Your task to perform on an android device: toggle location history Image 0: 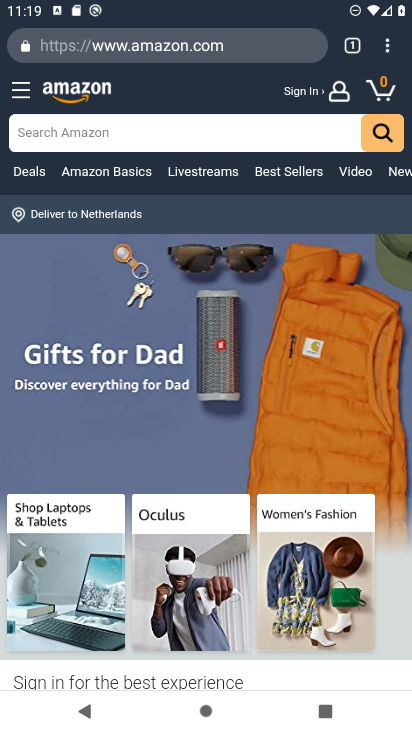
Step 0: press home button
Your task to perform on an android device: toggle location history Image 1: 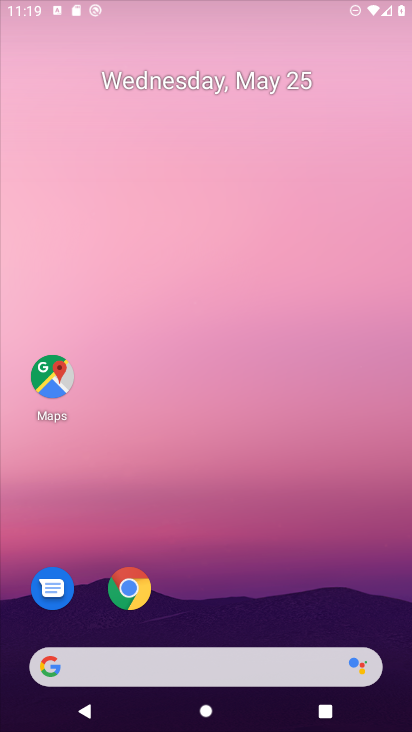
Step 1: drag from (29, 537) to (257, 136)
Your task to perform on an android device: toggle location history Image 2: 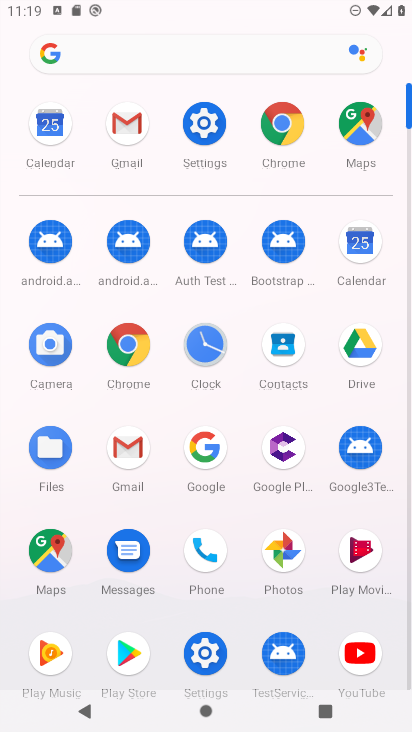
Step 2: click (207, 119)
Your task to perform on an android device: toggle location history Image 3: 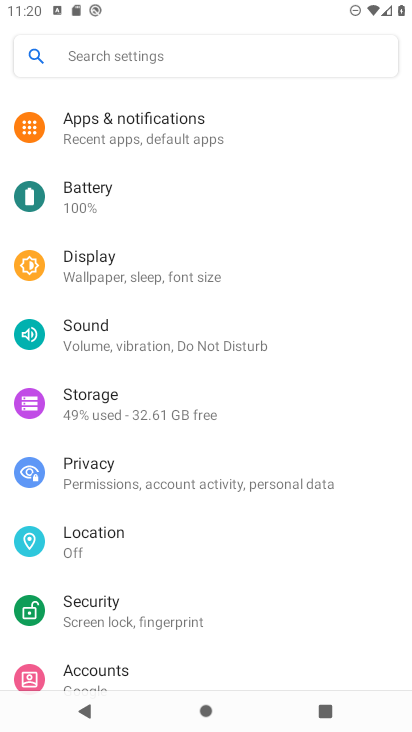
Step 3: click (88, 534)
Your task to perform on an android device: toggle location history Image 4: 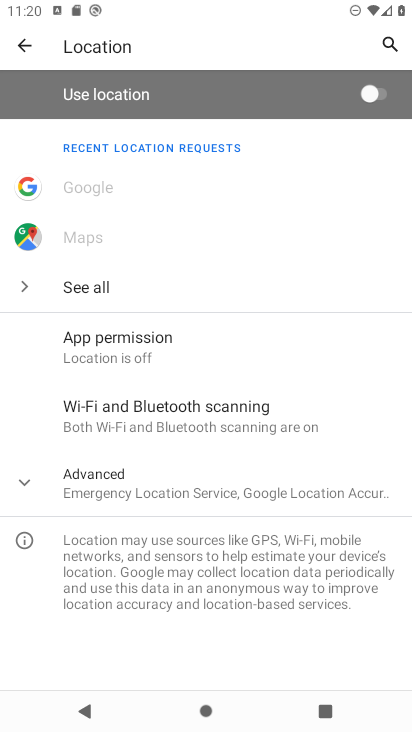
Step 4: click (97, 473)
Your task to perform on an android device: toggle location history Image 5: 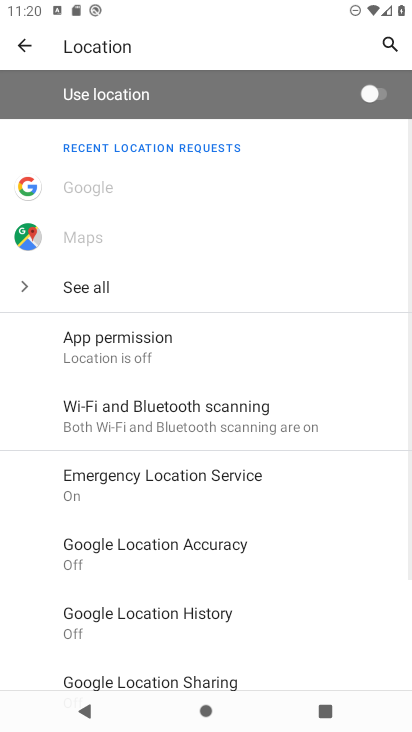
Step 5: click (116, 612)
Your task to perform on an android device: toggle location history Image 6: 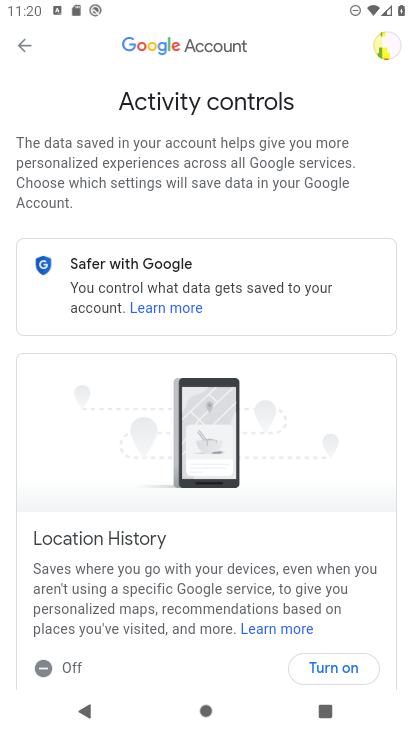
Step 6: click (353, 665)
Your task to perform on an android device: toggle location history Image 7: 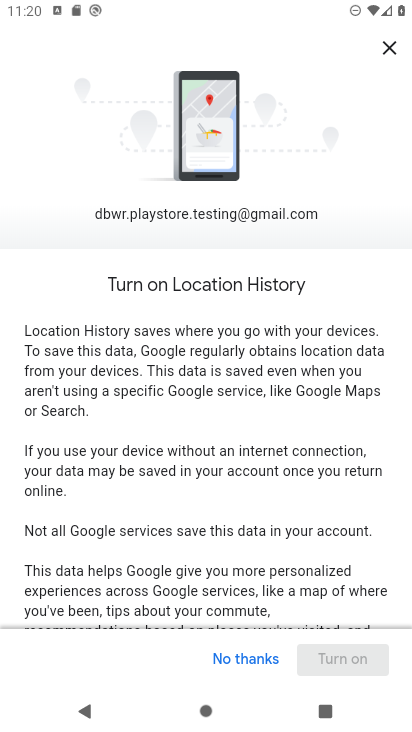
Step 7: drag from (40, 497) to (359, 10)
Your task to perform on an android device: toggle location history Image 8: 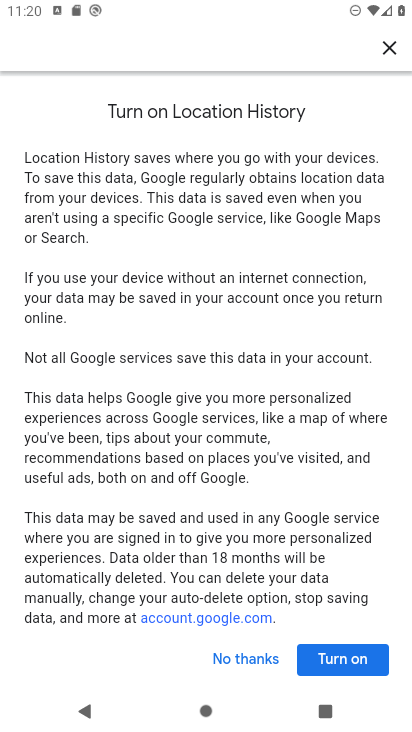
Step 8: click (341, 658)
Your task to perform on an android device: toggle location history Image 9: 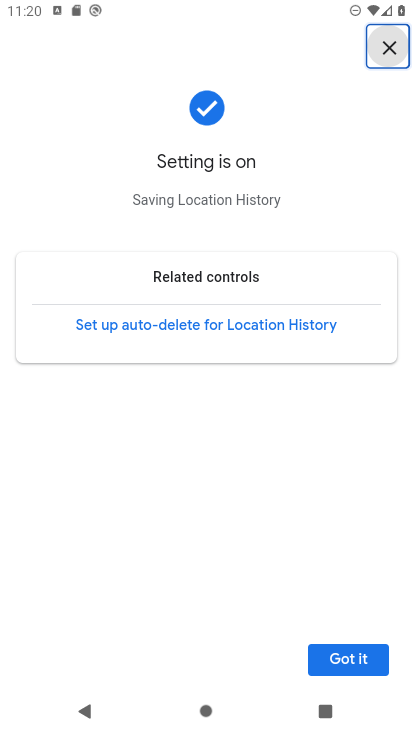
Step 9: task complete